Your task to perform on an android device: open a bookmark in the chrome app Image 0: 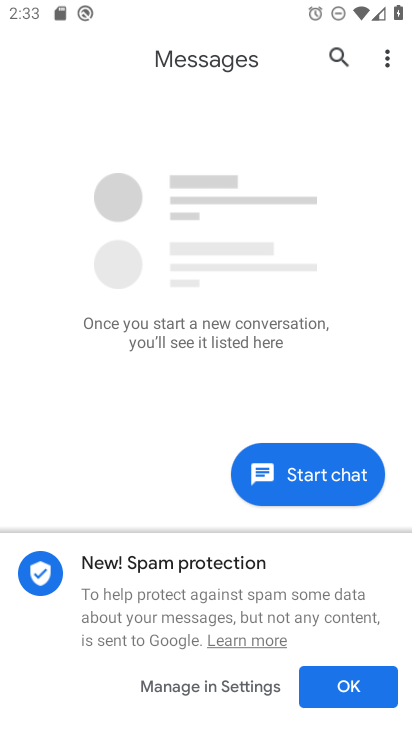
Step 0: press home button
Your task to perform on an android device: open a bookmark in the chrome app Image 1: 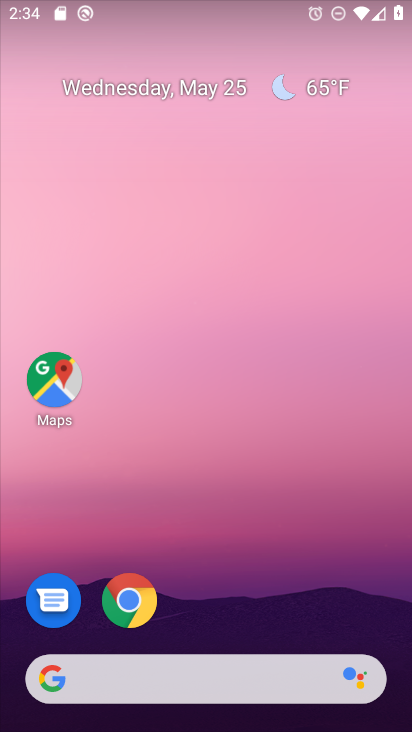
Step 1: drag from (277, 530) to (223, 68)
Your task to perform on an android device: open a bookmark in the chrome app Image 2: 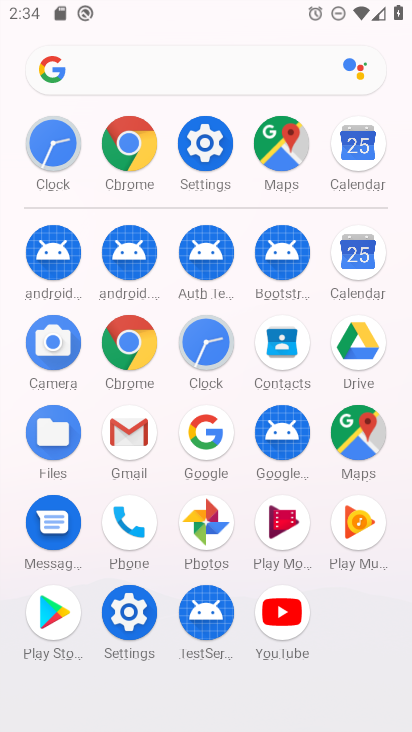
Step 2: click (135, 333)
Your task to perform on an android device: open a bookmark in the chrome app Image 3: 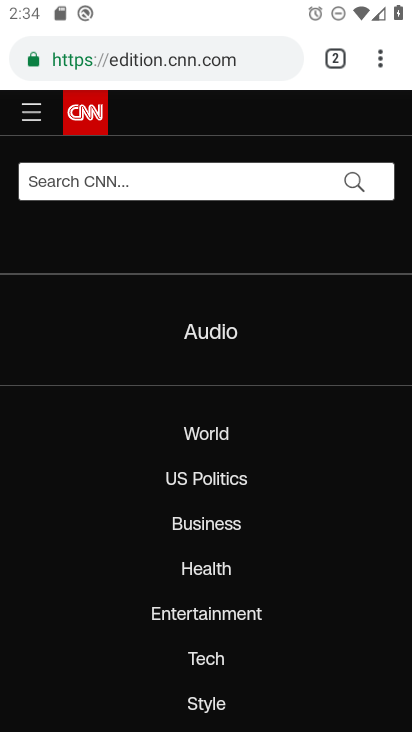
Step 3: task complete